Your task to perform on an android device: Go to Android settings Image 0: 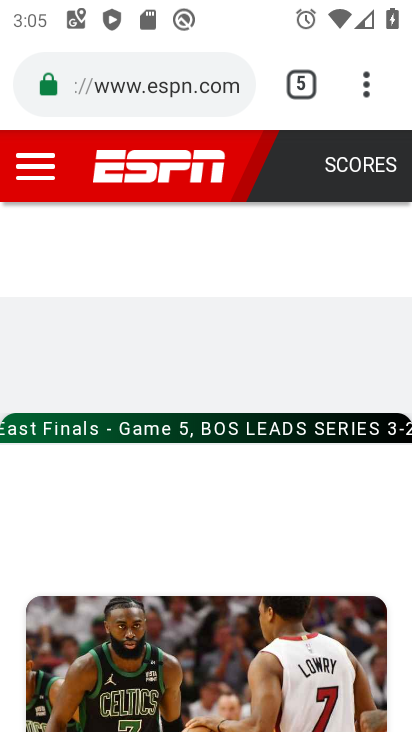
Step 0: press home button
Your task to perform on an android device: Go to Android settings Image 1: 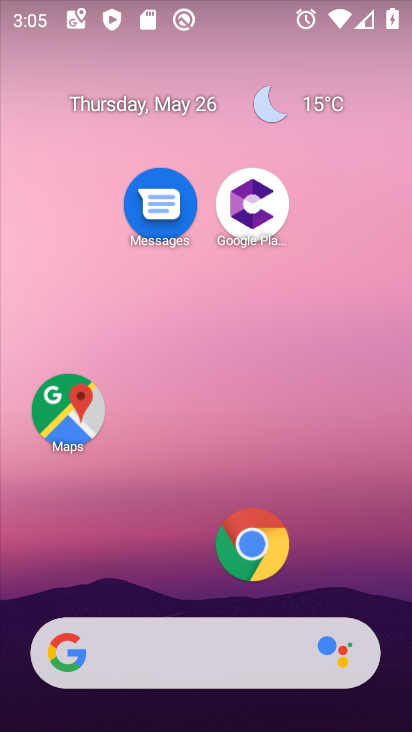
Step 1: drag from (130, 577) to (165, 208)
Your task to perform on an android device: Go to Android settings Image 2: 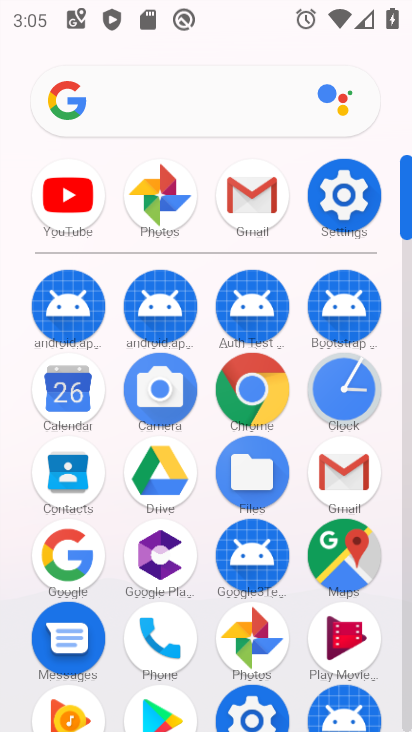
Step 2: click (339, 191)
Your task to perform on an android device: Go to Android settings Image 3: 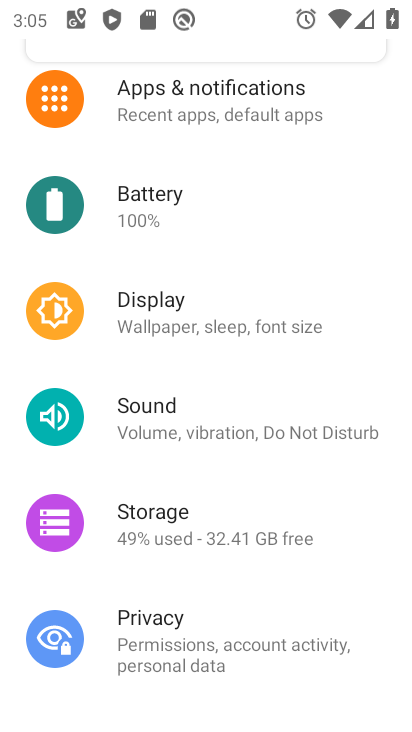
Step 3: task complete